Your task to perform on an android device: Go to settings Image 0: 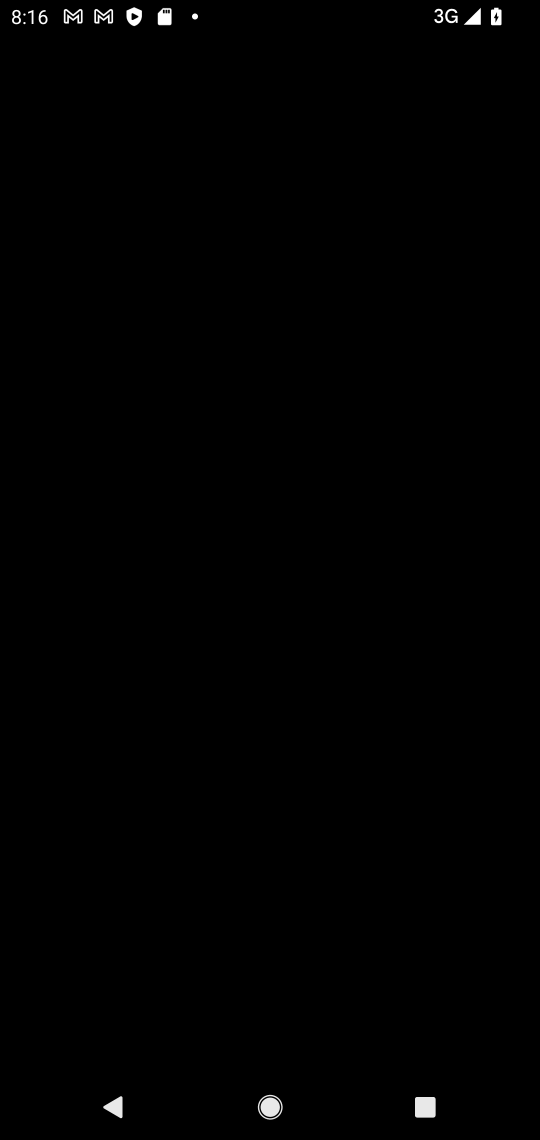
Step 0: task complete